Your task to perform on an android device: Go to CNN.com Image 0: 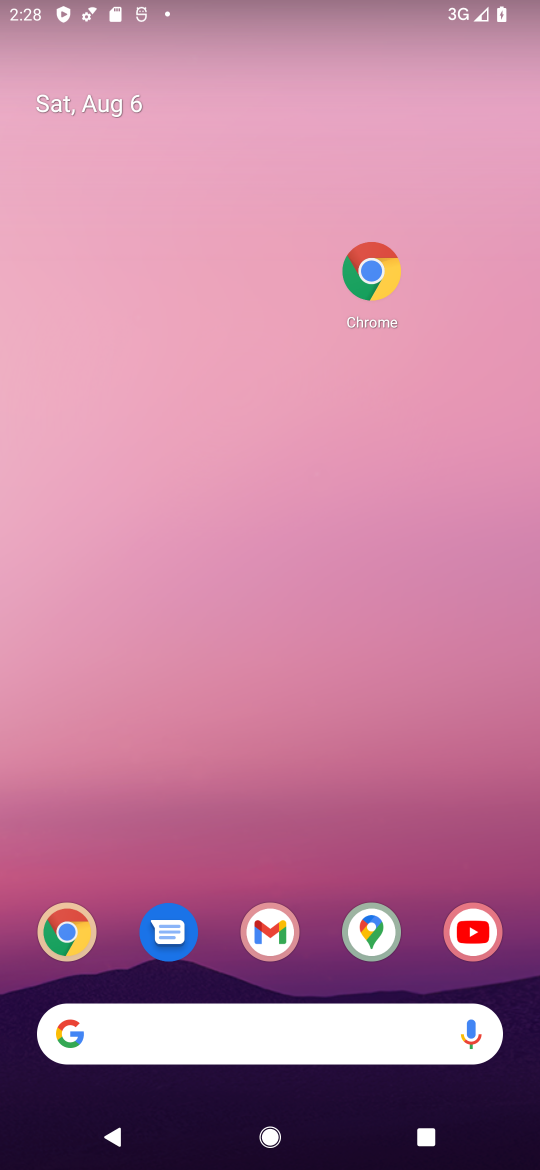
Step 0: click (57, 926)
Your task to perform on an android device: Go to CNN.com Image 1: 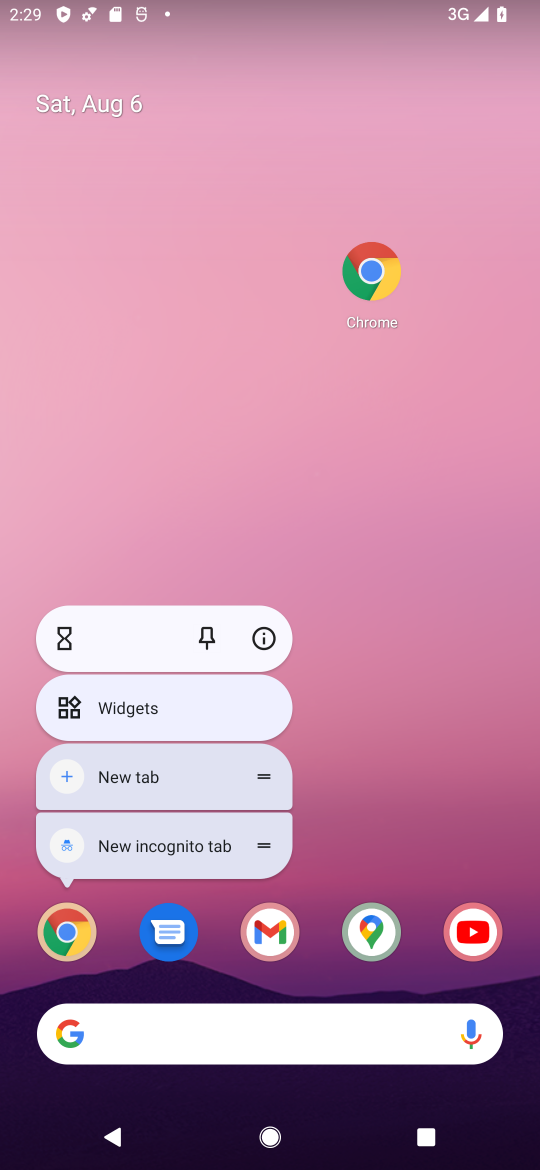
Step 1: click (64, 921)
Your task to perform on an android device: Go to CNN.com Image 2: 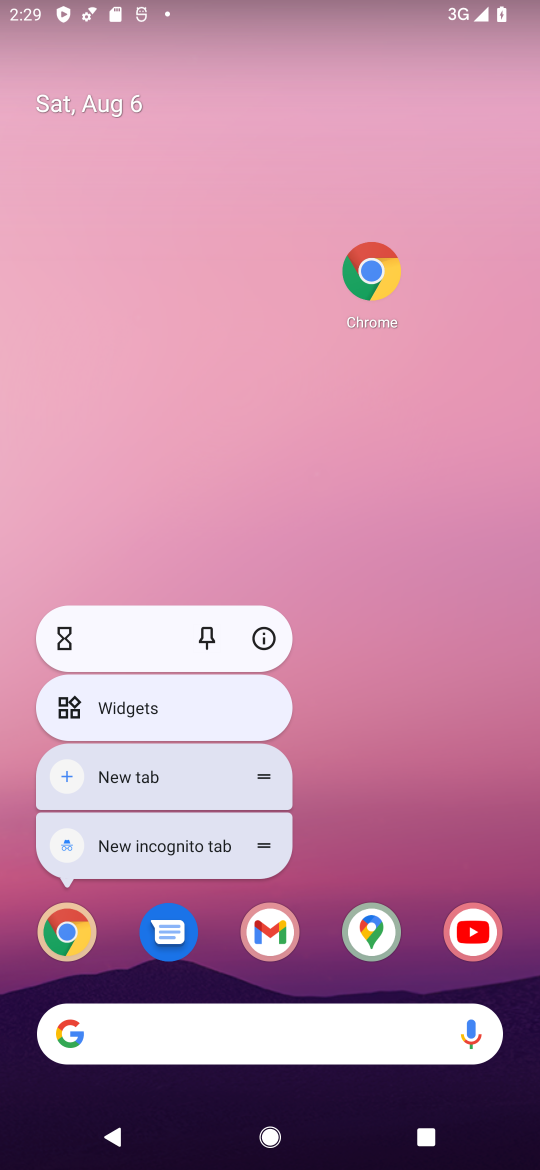
Step 2: click (64, 921)
Your task to perform on an android device: Go to CNN.com Image 3: 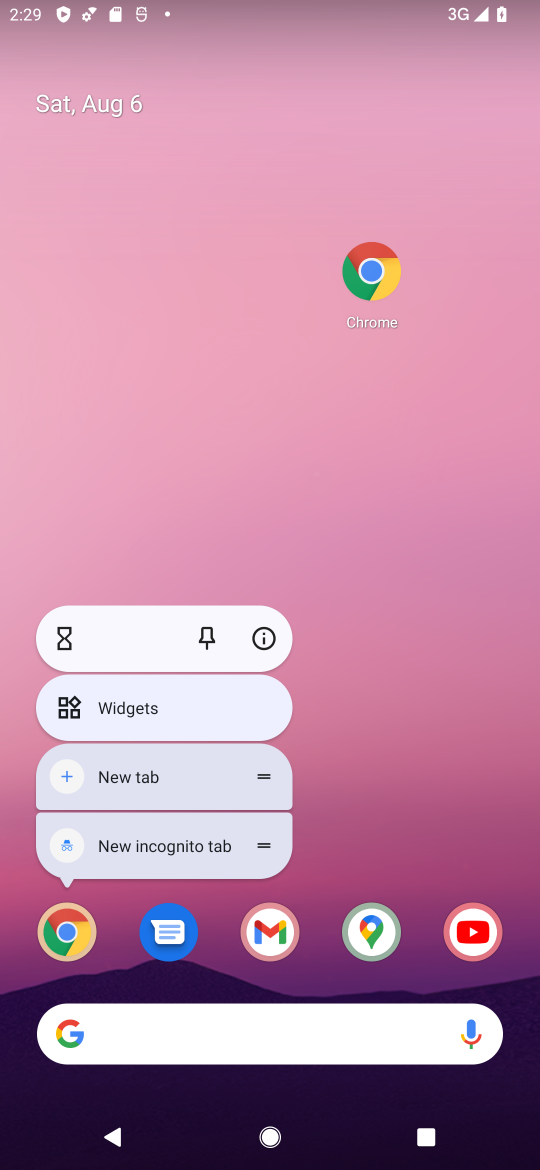
Step 3: drag from (410, 949) to (387, 34)
Your task to perform on an android device: Go to CNN.com Image 4: 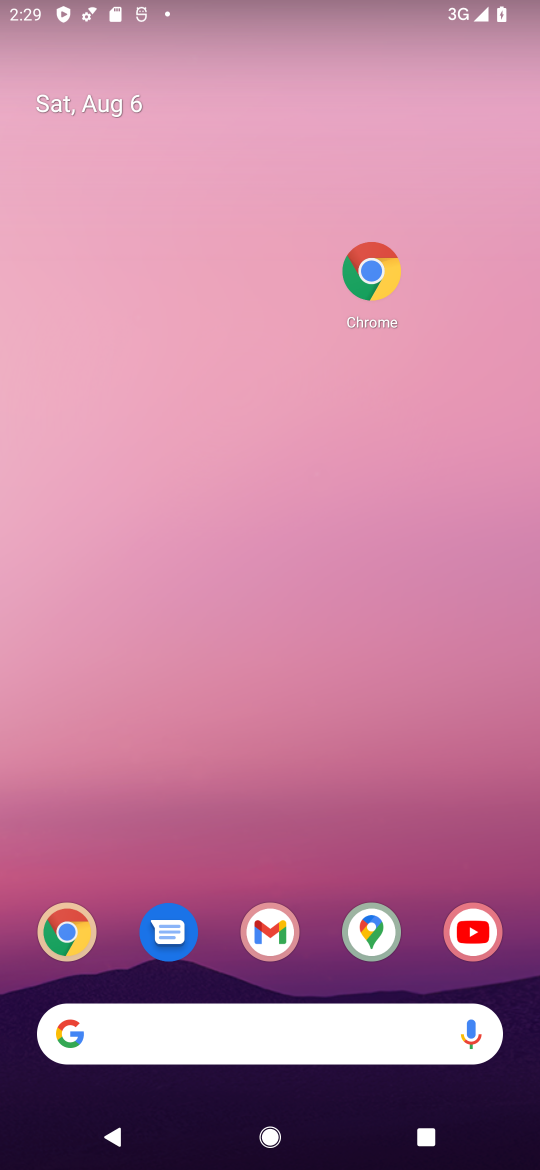
Step 4: drag from (241, 944) to (254, 54)
Your task to perform on an android device: Go to CNN.com Image 5: 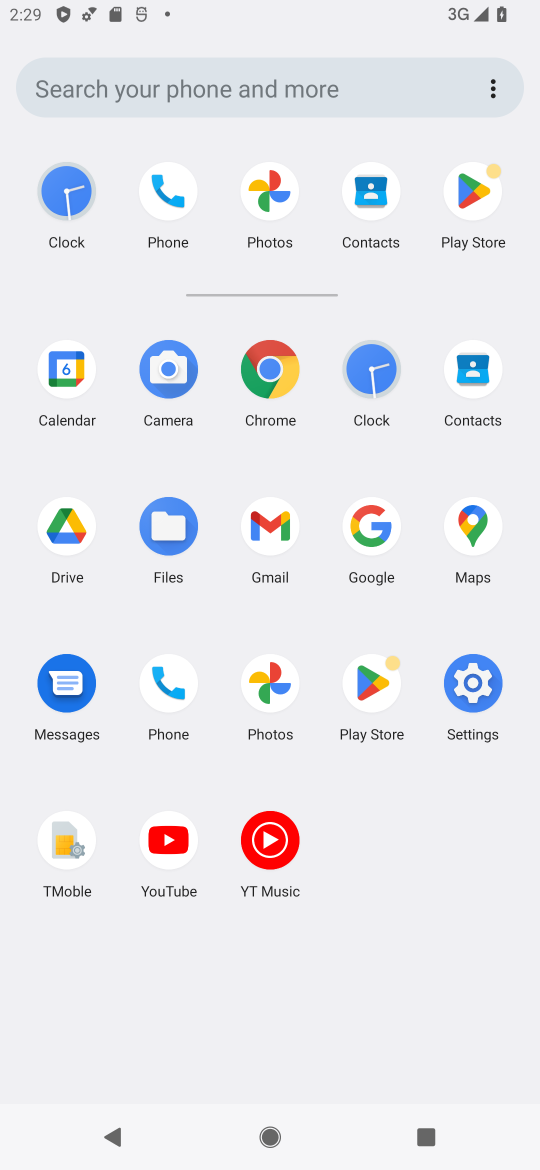
Step 5: click (257, 363)
Your task to perform on an android device: Go to CNN.com Image 6: 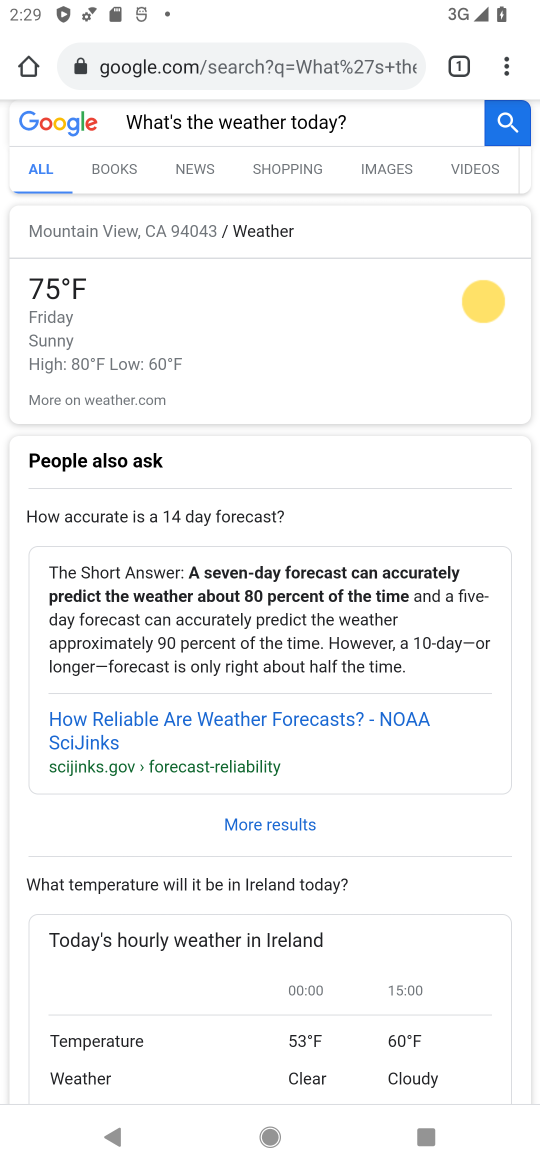
Step 6: click (128, 68)
Your task to perform on an android device: Go to CNN.com Image 7: 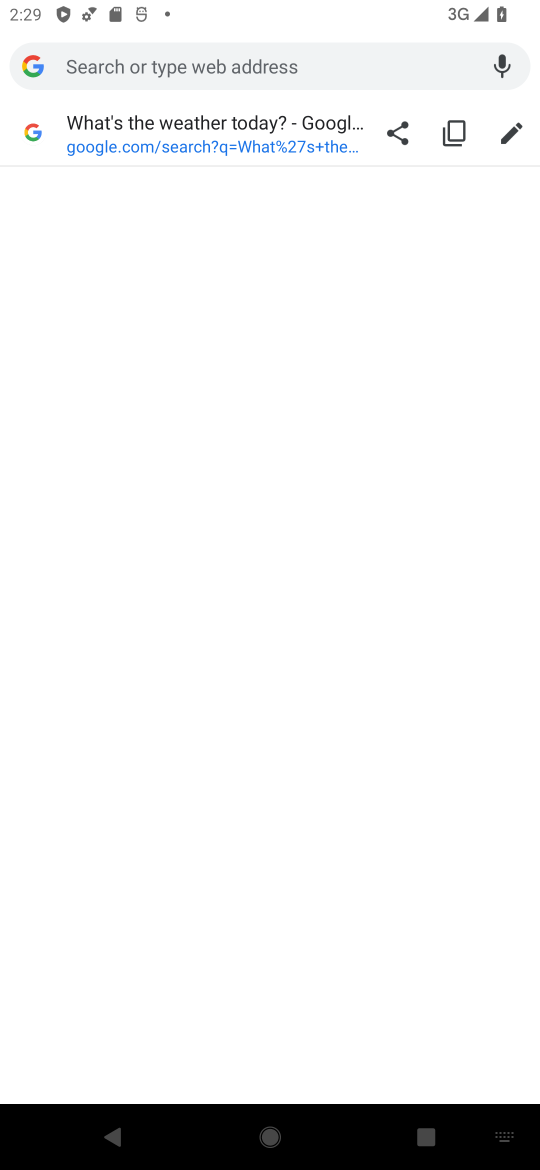
Step 7: type " CNN.com"
Your task to perform on an android device: Go to CNN.com Image 8: 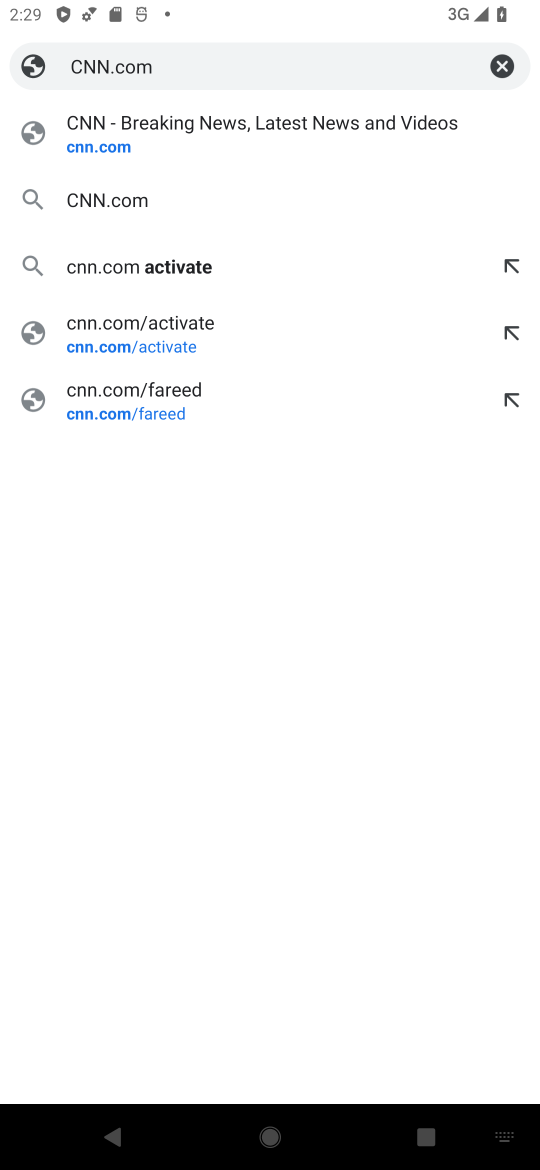
Step 8: click (84, 137)
Your task to perform on an android device: Go to CNN.com Image 9: 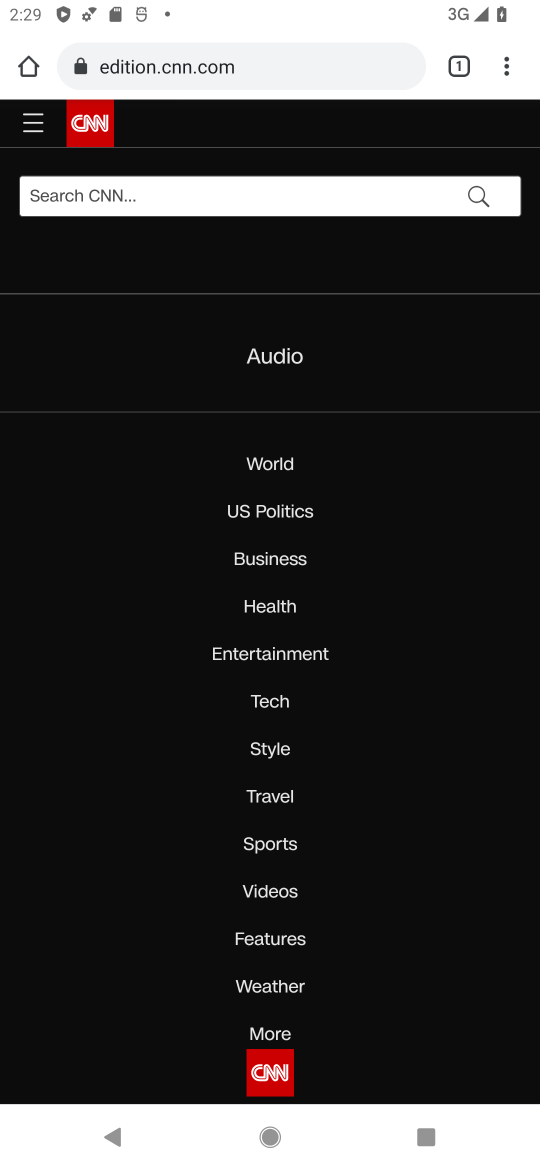
Step 9: task complete